Your task to perform on an android device: Open Google Image 0: 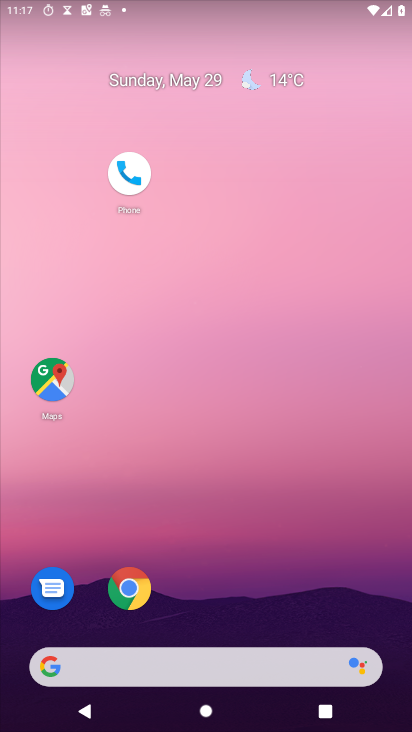
Step 0: drag from (277, 701) to (134, 59)
Your task to perform on an android device: Open Google Image 1: 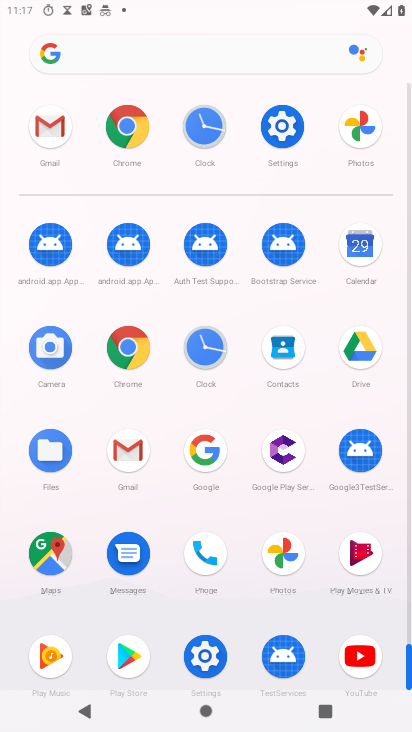
Step 1: click (216, 468)
Your task to perform on an android device: Open Google Image 2: 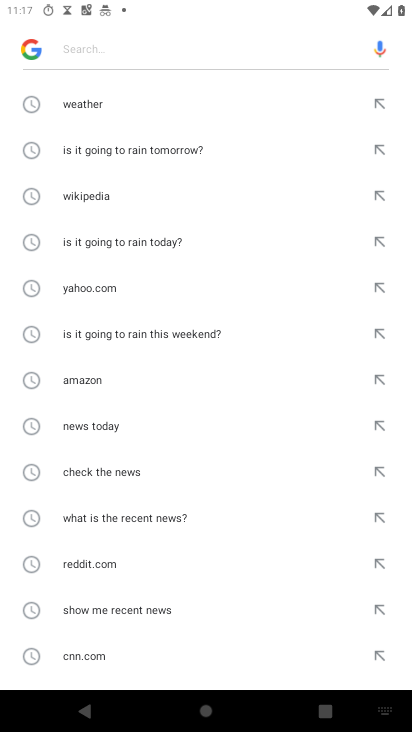
Step 2: click (208, 457)
Your task to perform on an android device: Open Google Image 3: 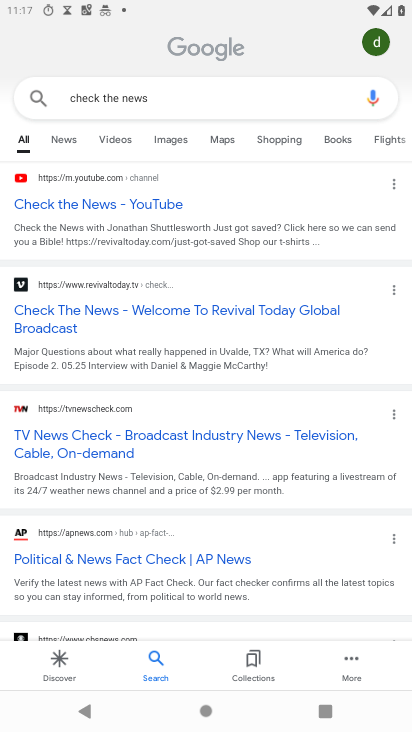
Step 3: task complete